Your task to perform on an android device: turn vacation reply on in the gmail app Image 0: 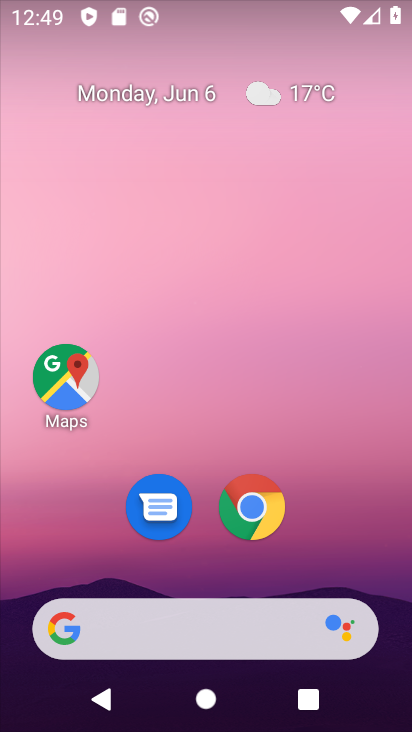
Step 0: drag from (159, 590) to (166, 172)
Your task to perform on an android device: turn vacation reply on in the gmail app Image 1: 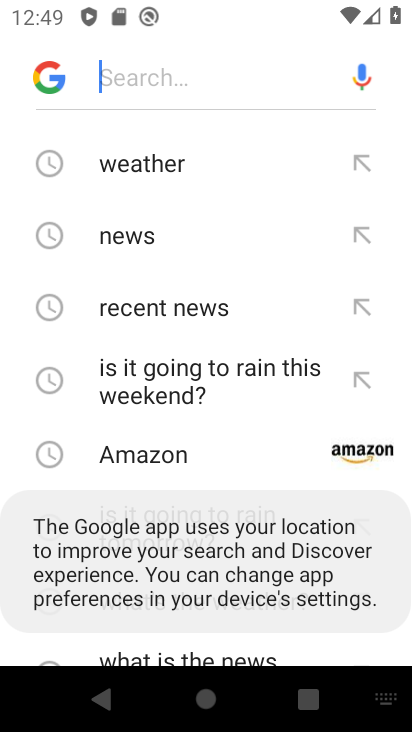
Step 1: press home button
Your task to perform on an android device: turn vacation reply on in the gmail app Image 2: 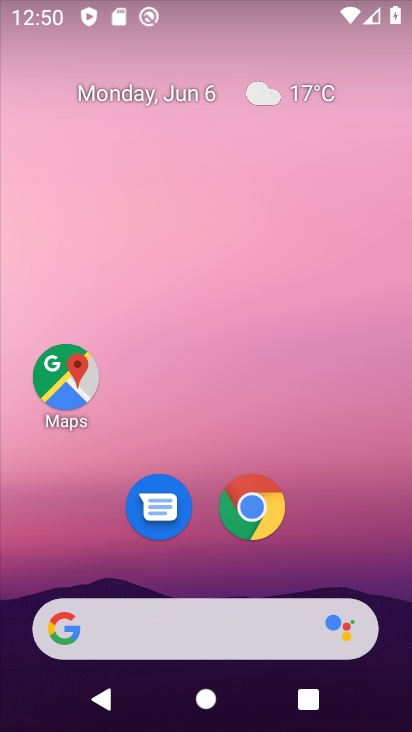
Step 2: drag from (166, 604) to (159, 103)
Your task to perform on an android device: turn vacation reply on in the gmail app Image 3: 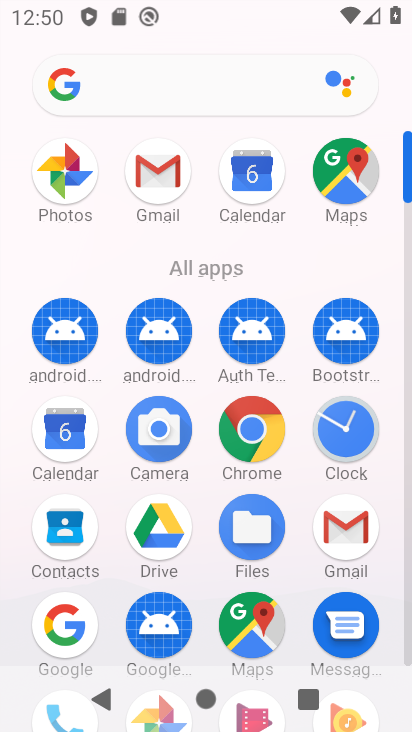
Step 3: click (147, 183)
Your task to perform on an android device: turn vacation reply on in the gmail app Image 4: 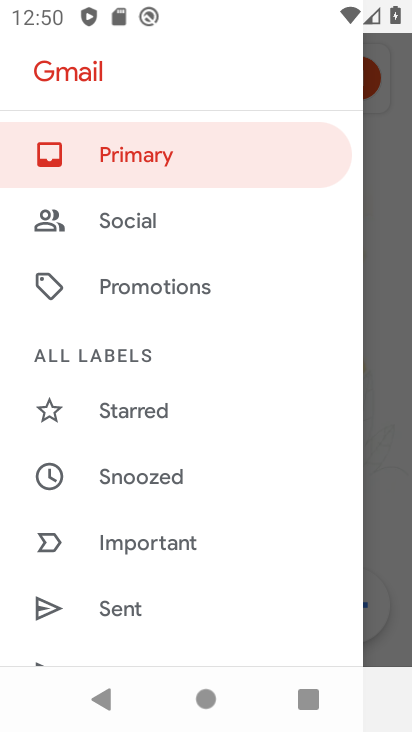
Step 4: drag from (85, 610) to (93, 57)
Your task to perform on an android device: turn vacation reply on in the gmail app Image 5: 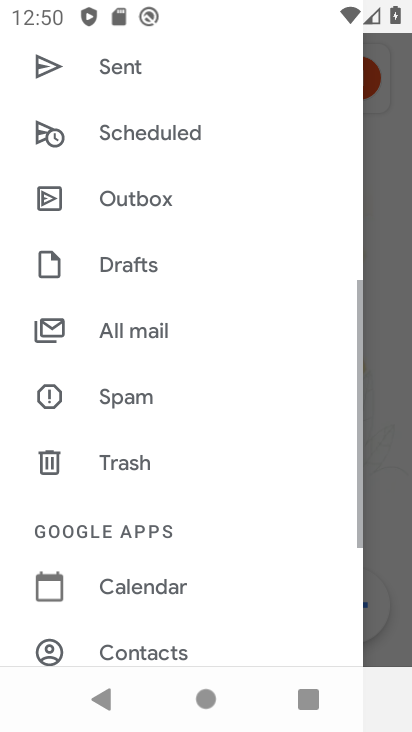
Step 5: drag from (169, 617) to (132, 83)
Your task to perform on an android device: turn vacation reply on in the gmail app Image 6: 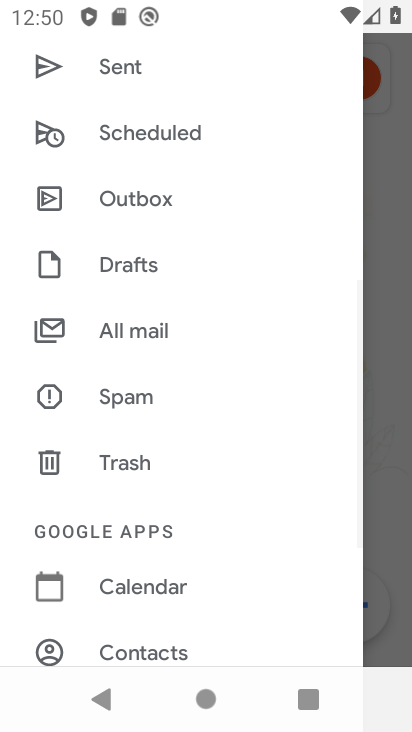
Step 6: drag from (143, 641) to (172, 161)
Your task to perform on an android device: turn vacation reply on in the gmail app Image 7: 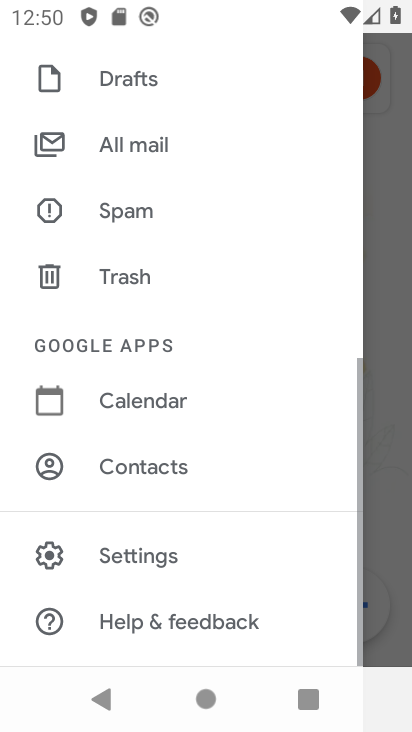
Step 7: click (158, 567)
Your task to perform on an android device: turn vacation reply on in the gmail app Image 8: 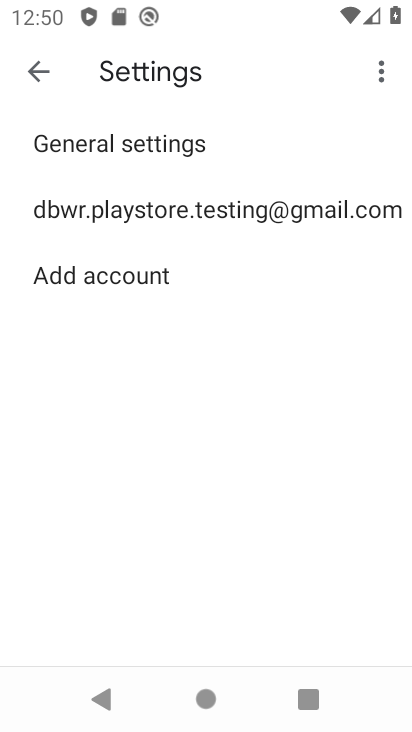
Step 8: click (207, 211)
Your task to perform on an android device: turn vacation reply on in the gmail app Image 9: 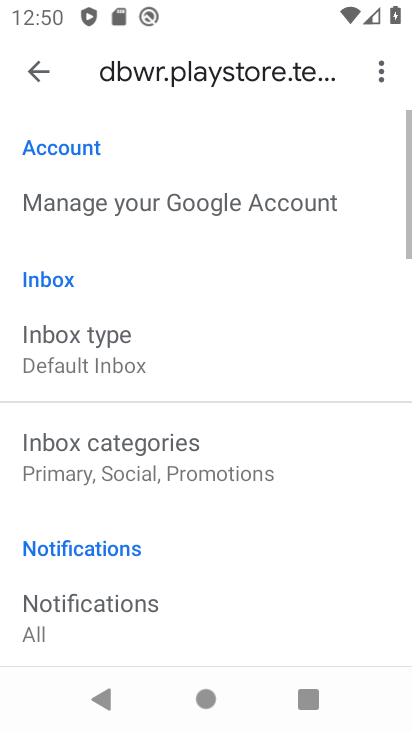
Step 9: drag from (133, 650) to (138, 146)
Your task to perform on an android device: turn vacation reply on in the gmail app Image 10: 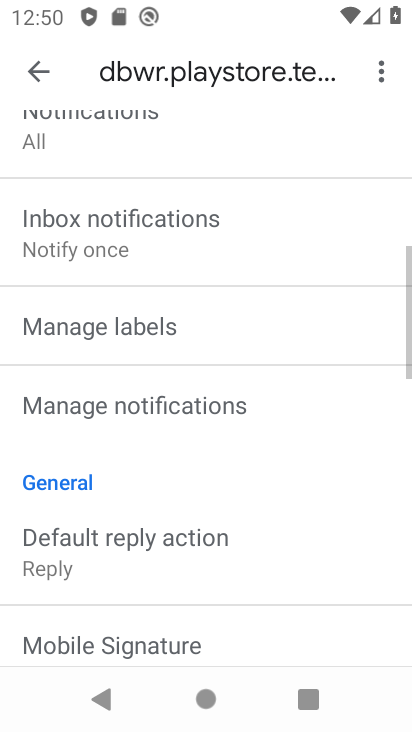
Step 10: drag from (138, 646) to (138, 156)
Your task to perform on an android device: turn vacation reply on in the gmail app Image 11: 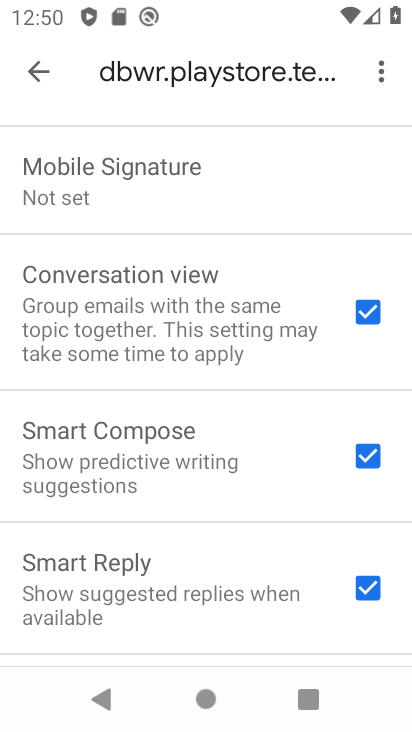
Step 11: drag from (103, 656) to (100, 139)
Your task to perform on an android device: turn vacation reply on in the gmail app Image 12: 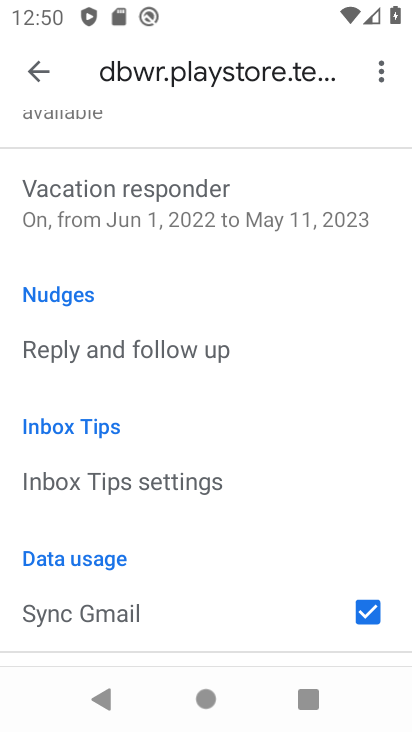
Step 12: click (107, 219)
Your task to perform on an android device: turn vacation reply on in the gmail app Image 13: 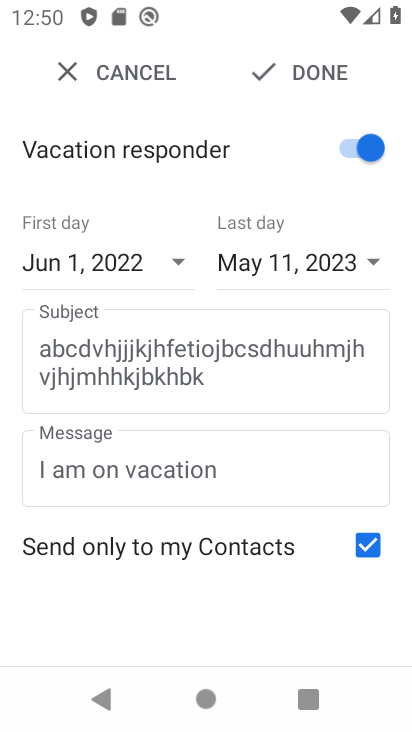
Step 13: task complete